Your task to perform on an android device: Open the calendar and show me this week's events? Image 0: 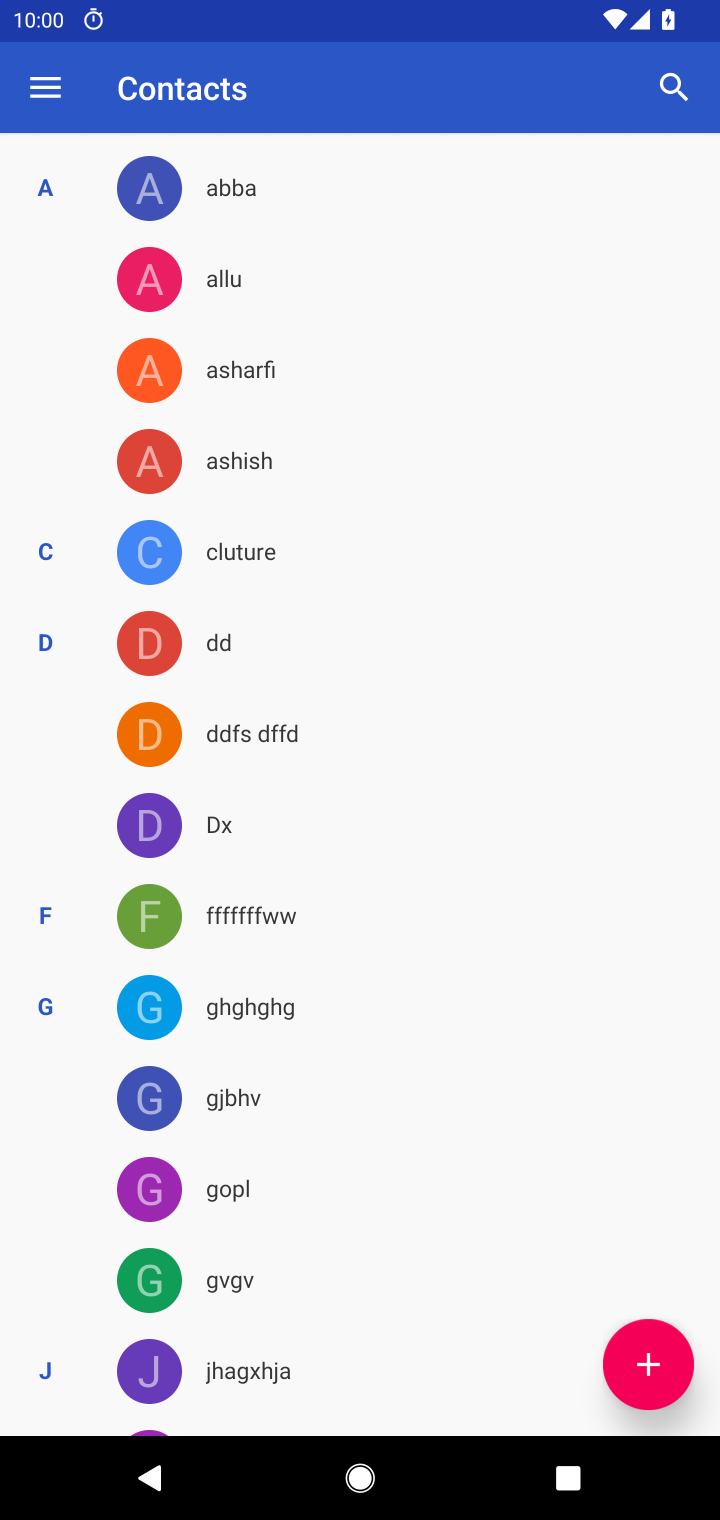
Step 0: press home button
Your task to perform on an android device: Open the calendar and show me this week's events? Image 1: 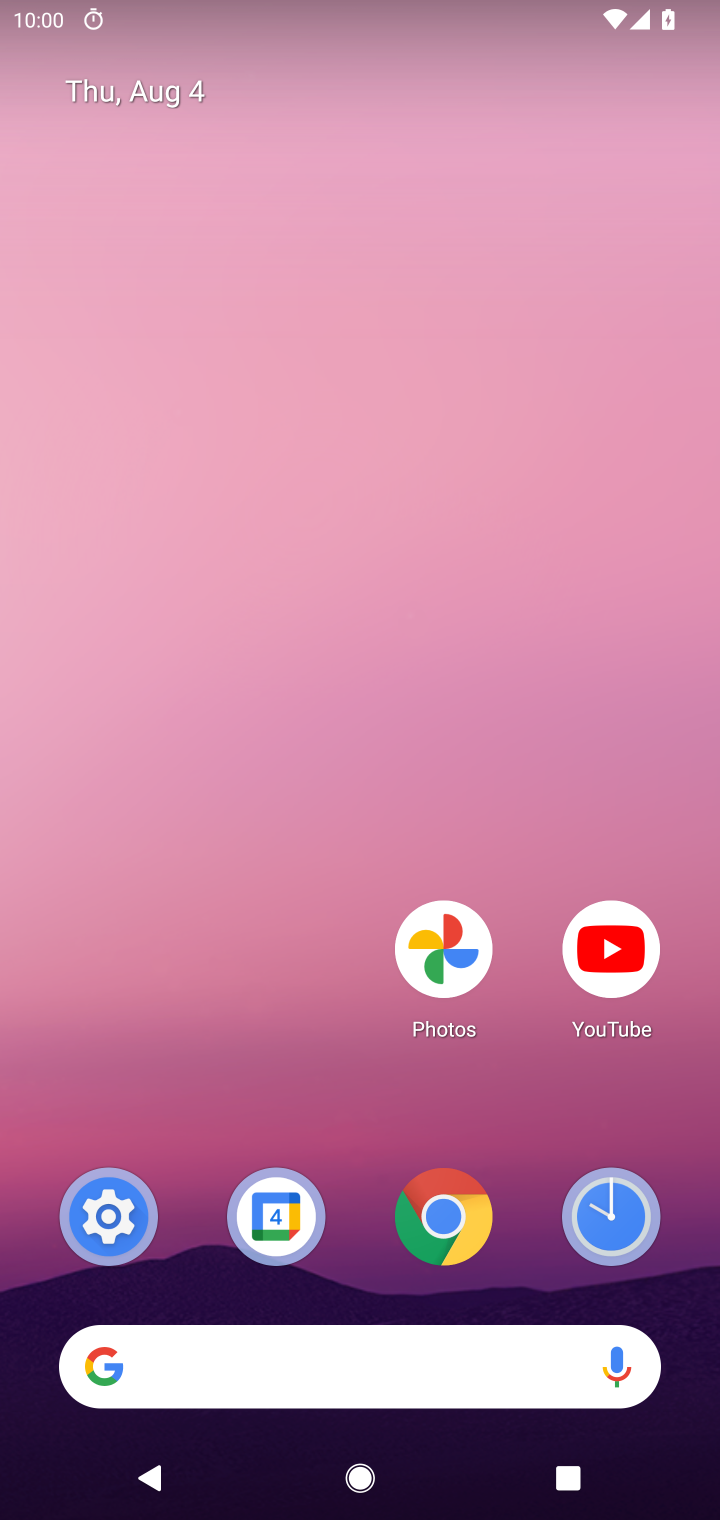
Step 1: drag from (345, 1114) to (345, 116)
Your task to perform on an android device: Open the calendar and show me this week's events? Image 2: 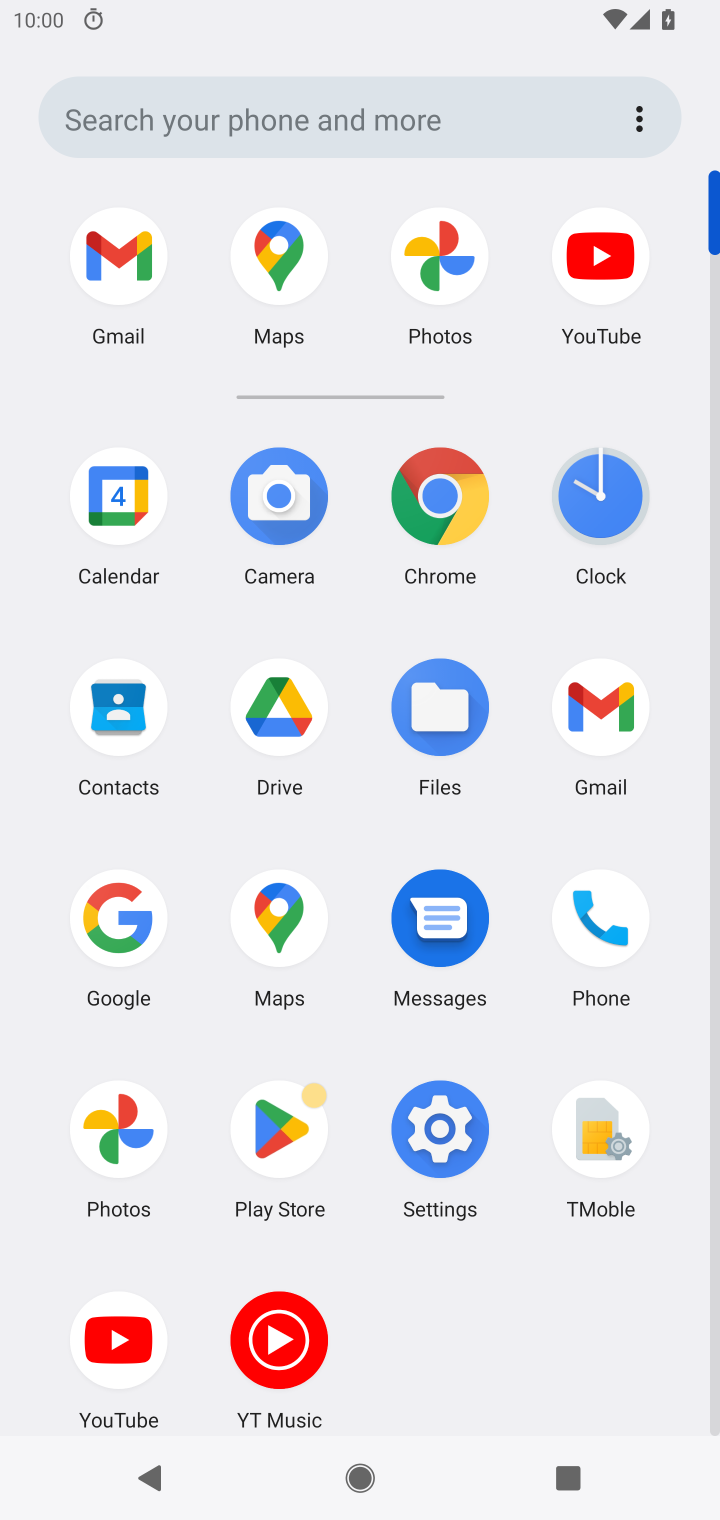
Step 2: click (132, 497)
Your task to perform on an android device: Open the calendar and show me this week's events? Image 3: 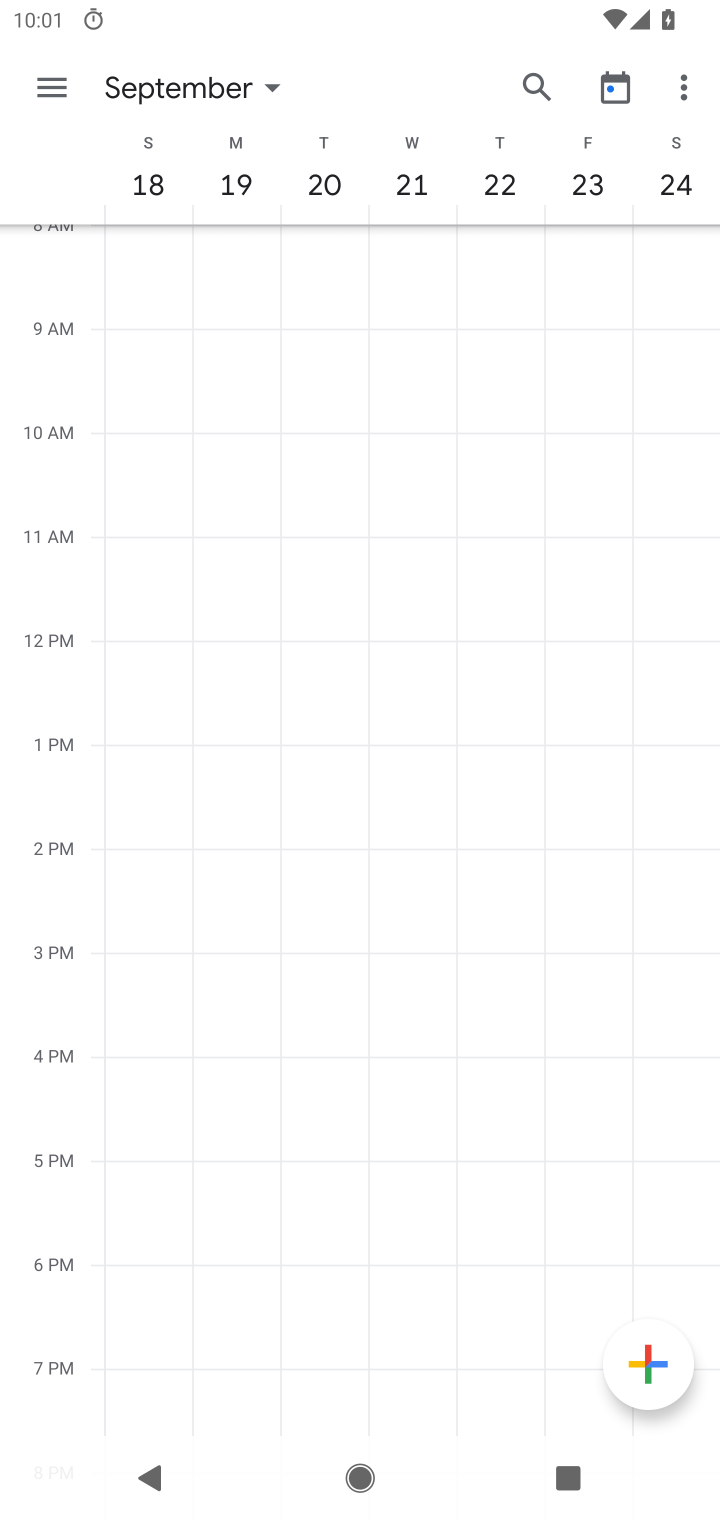
Step 3: click (272, 84)
Your task to perform on an android device: Open the calendar and show me this week's events? Image 4: 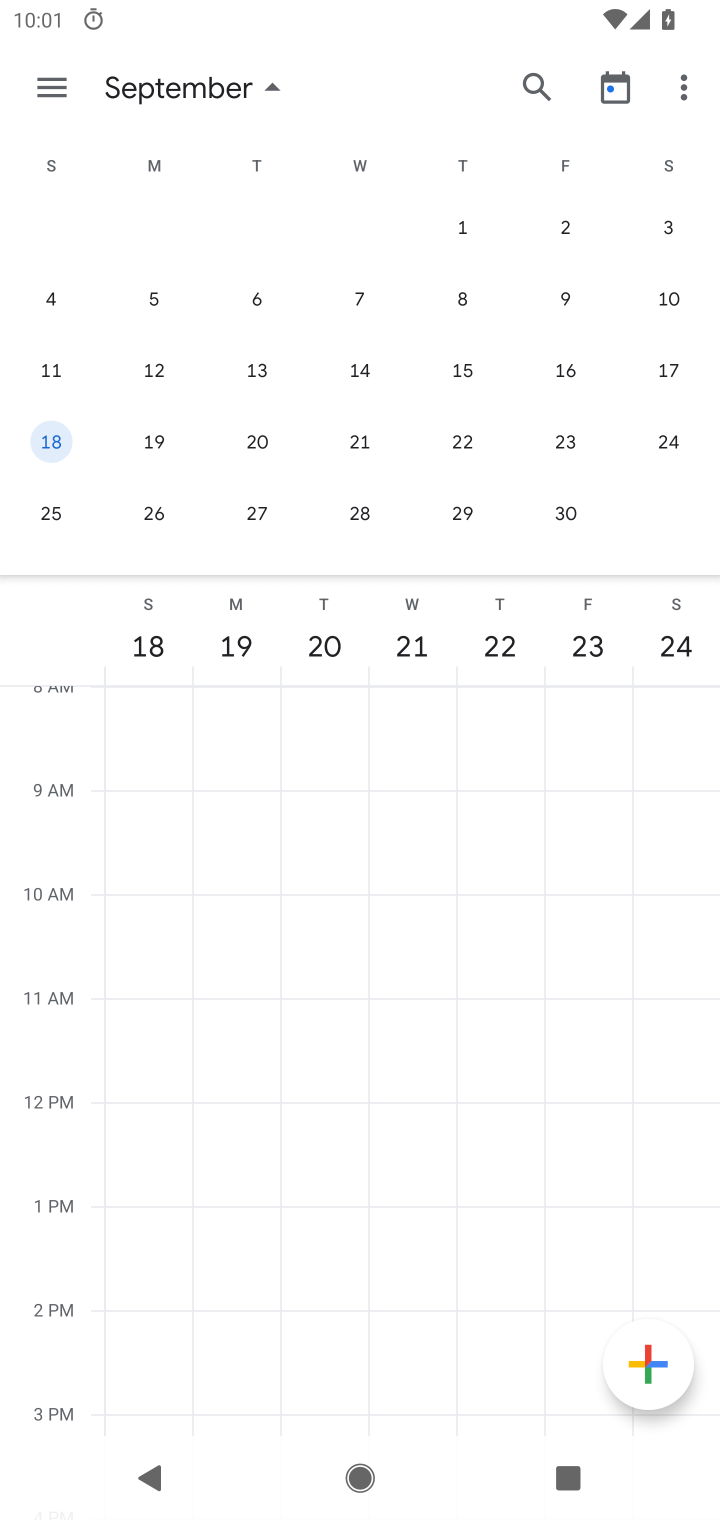
Step 4: drag from (115, 370) to (529, 396)
Your task to perform on an android device: Open the calendar and show me this week's events? Image 5: 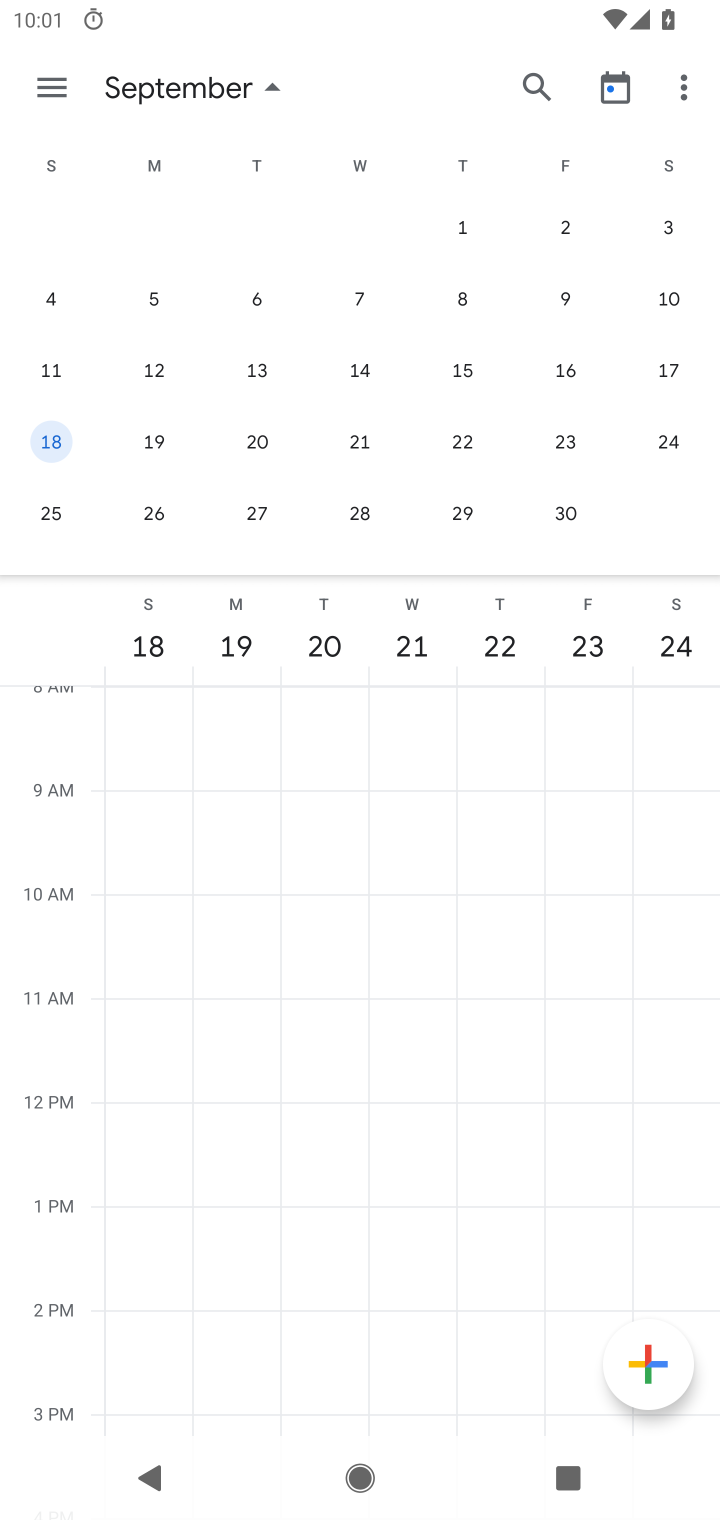
Step 5: drag from (168, 381) to (549, 375)
Your task to perform on an android device: Open the calendar and show me this week's events? Image 6: 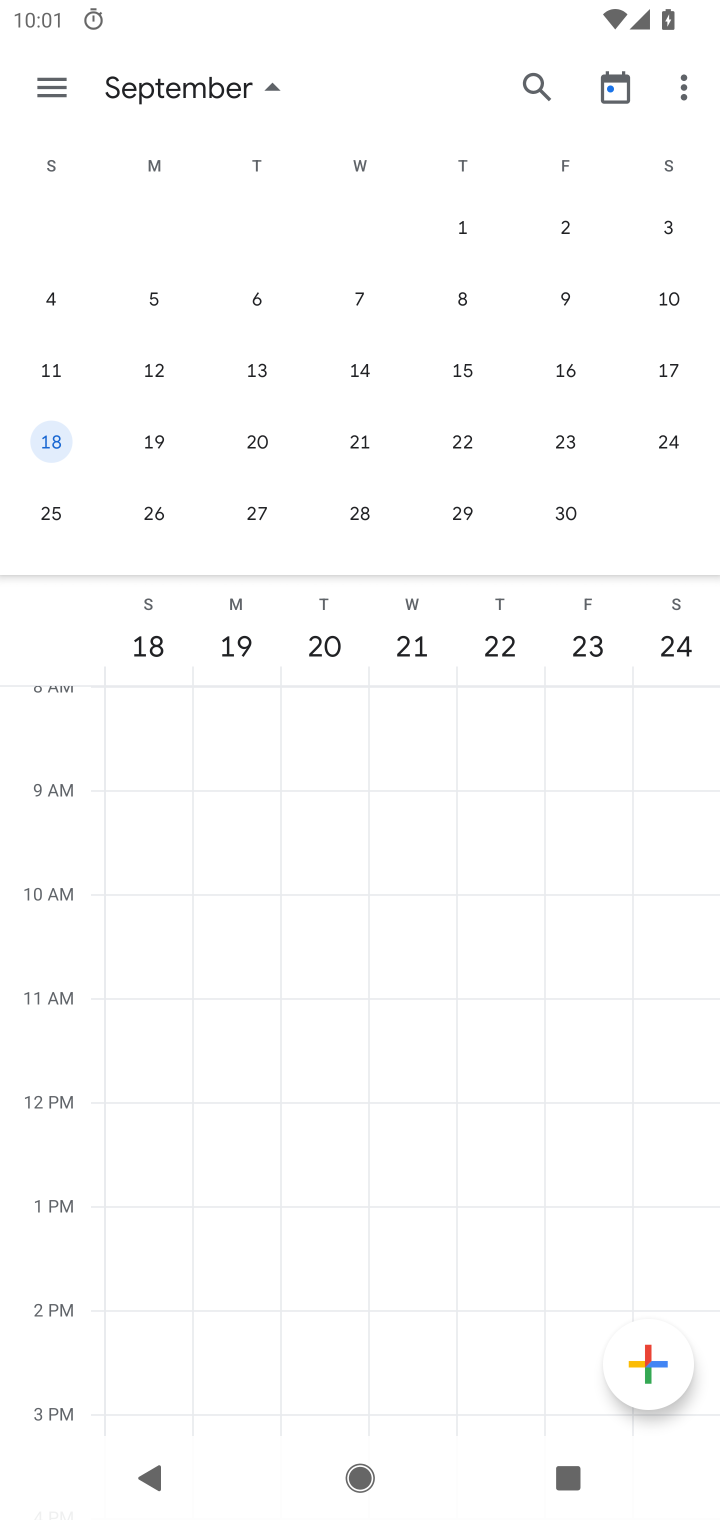
Step 6: drag from (145, 410) to (718, 409)
Your task to perform on an android device: Open the calendar and show me this week's events? Image 7: 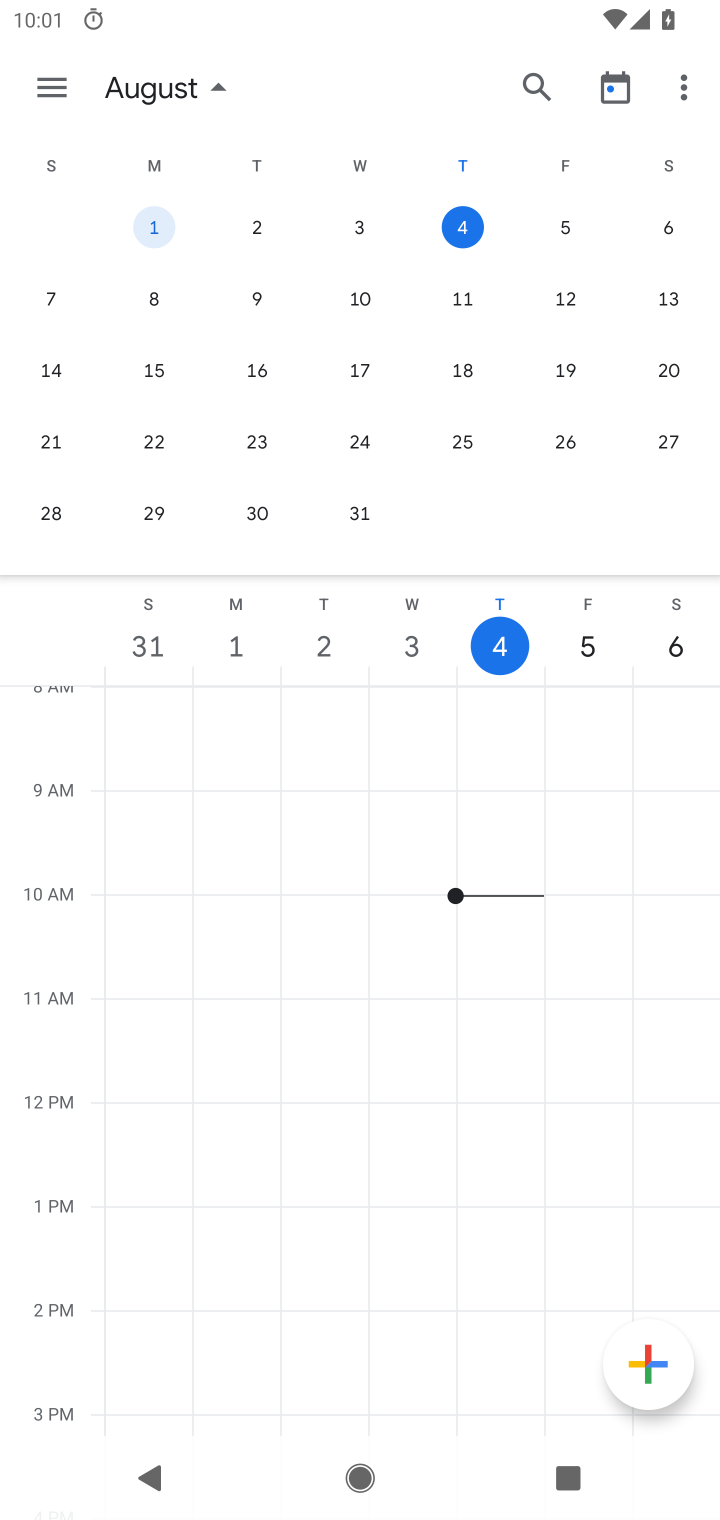
Step 7: click (55, 91)
Your task to perform on an android device: Open the calendar and show me this week's events? Image 8: 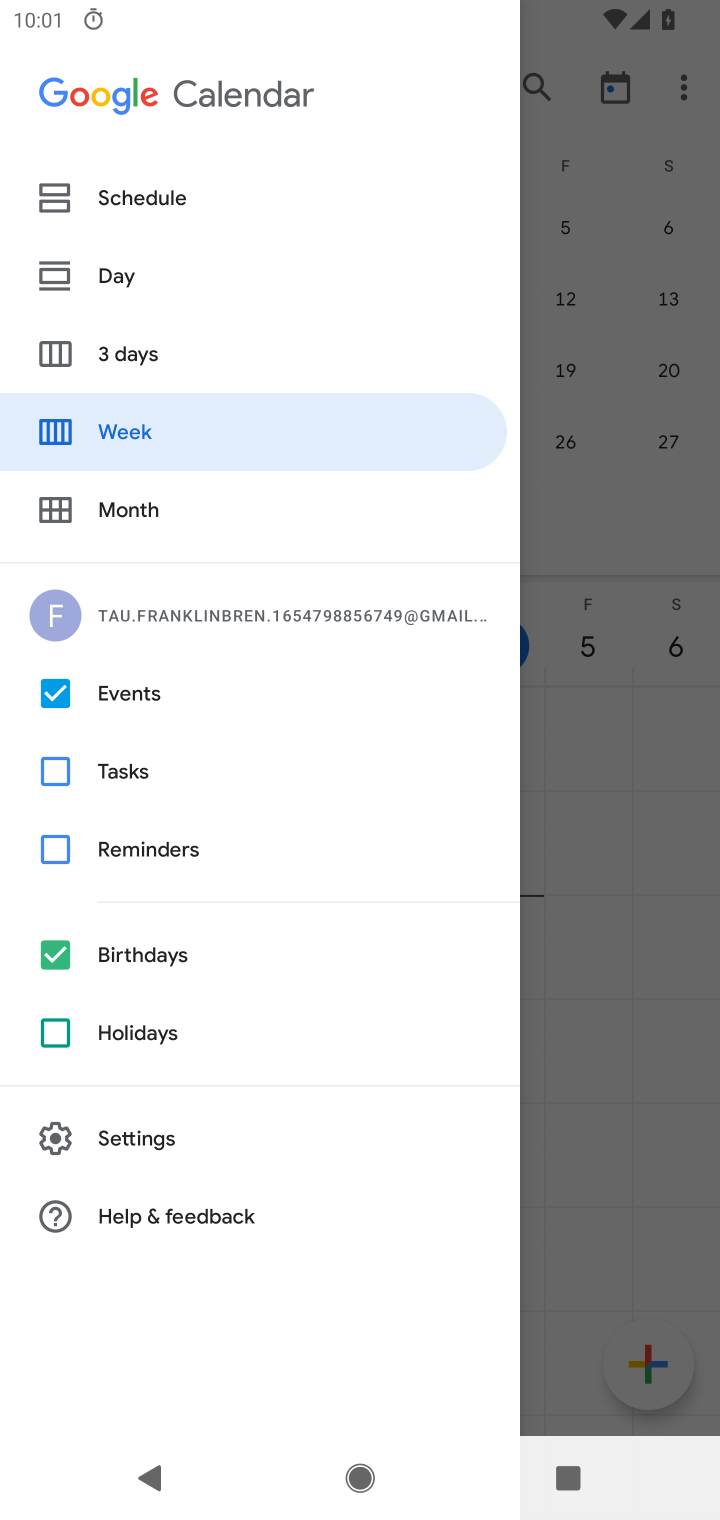
Step 8: click (167, 443)
Your task to perform on an android device: Open the calendar and show me this week's events? Image 9: 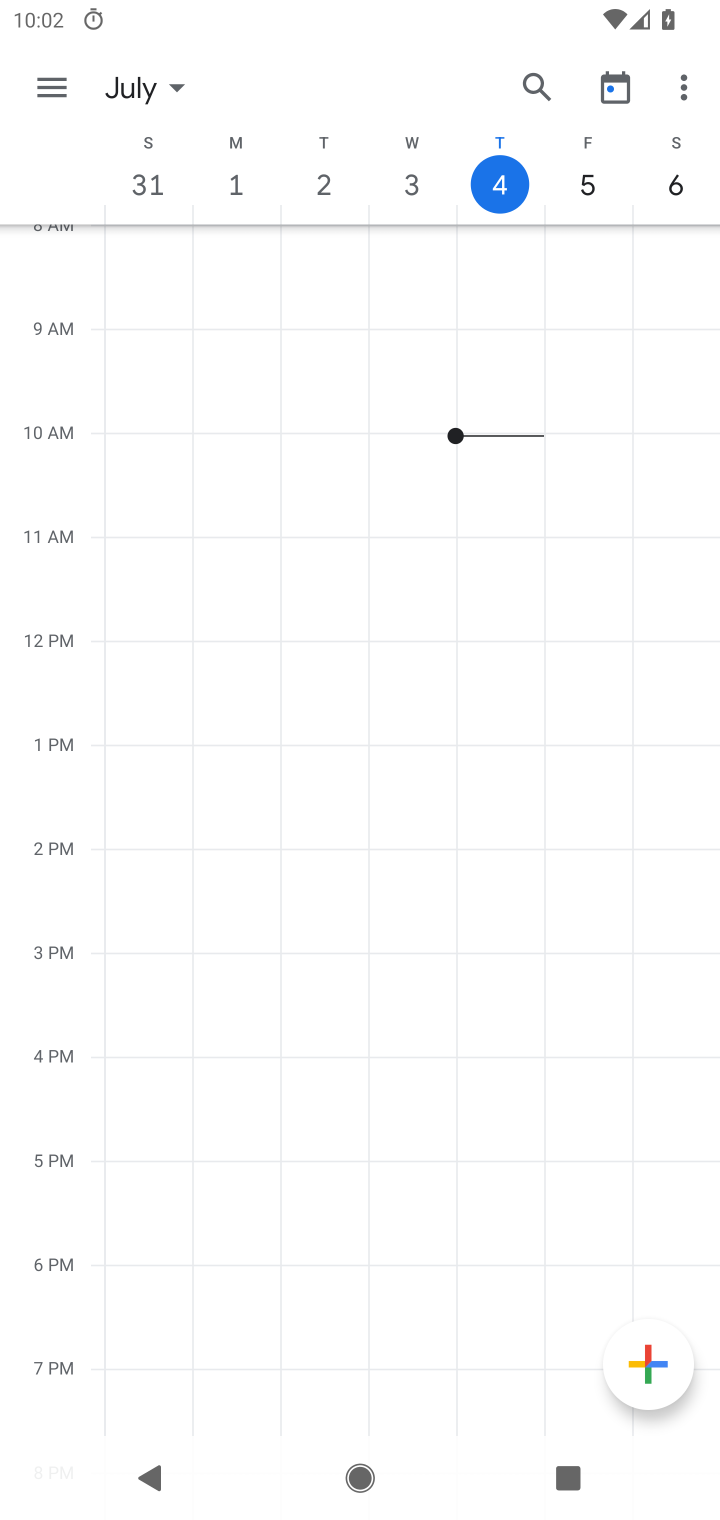
Step 9: task complete